Your task to perform on an android device: Go to notification settings Image 0: 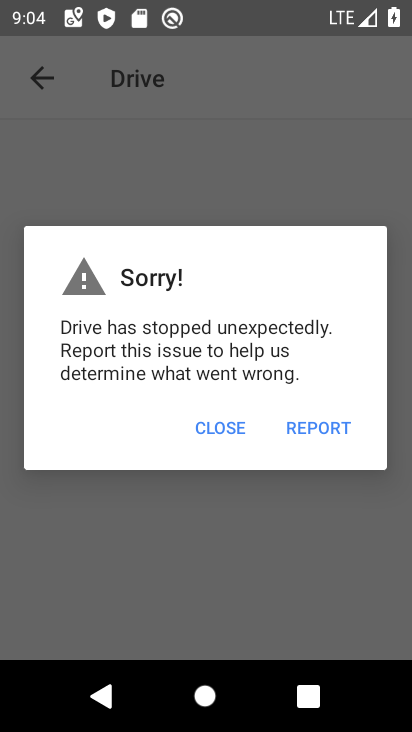
Step 0: click (215, 427)
Your task to perform on an android device: Go to notification settings Image 1: 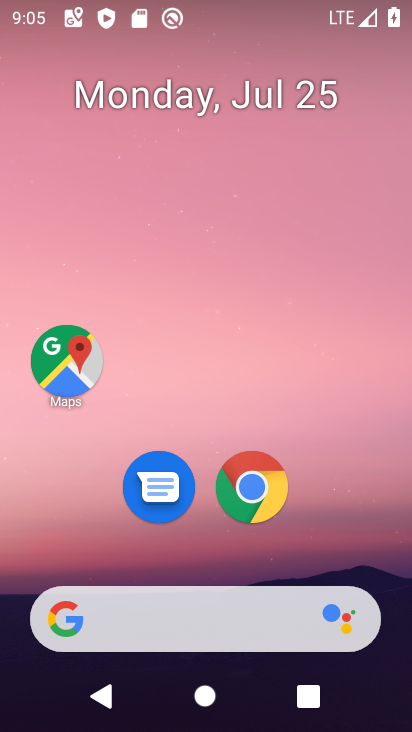
Step 1: drag from (185, 549) to (275, 57)
Your task to perform on an android device: Go to notification settings Image 2: 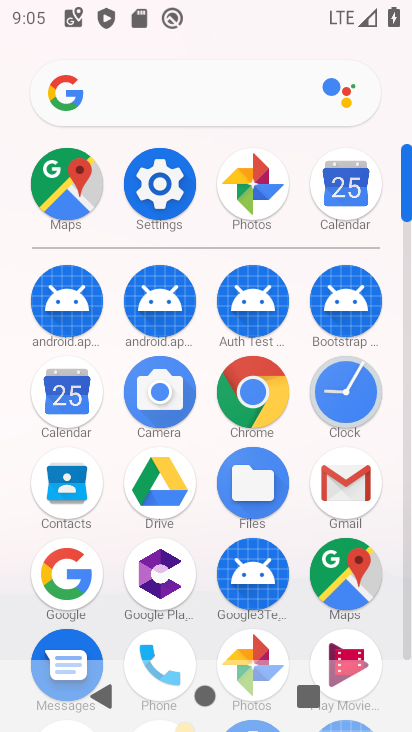
Step 2: click (167, 189)
Your task to perform on an android device: Go to notification settings Image 3: 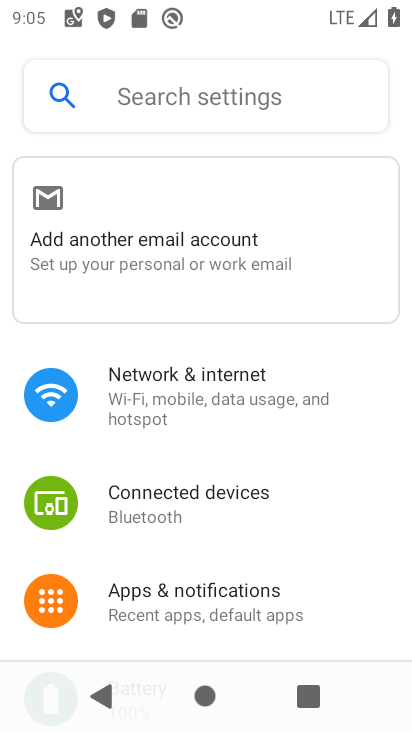
Step 3: click (197, 588)
Your task to perform on an android device: Go to notification settings Image 4: 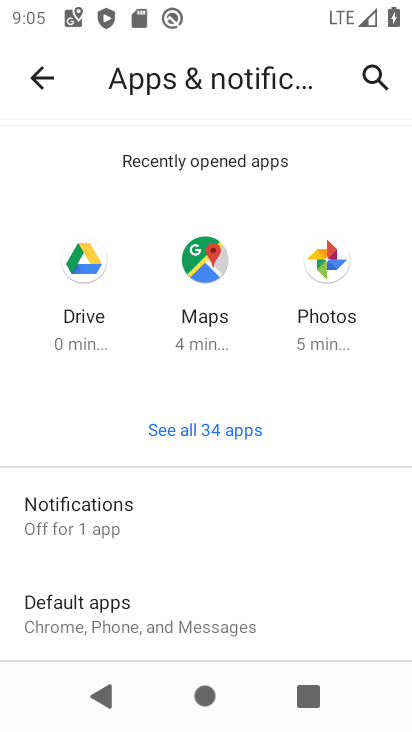
Step 4: task complete